Your task to perform on an android device: set an alarm Image 0: 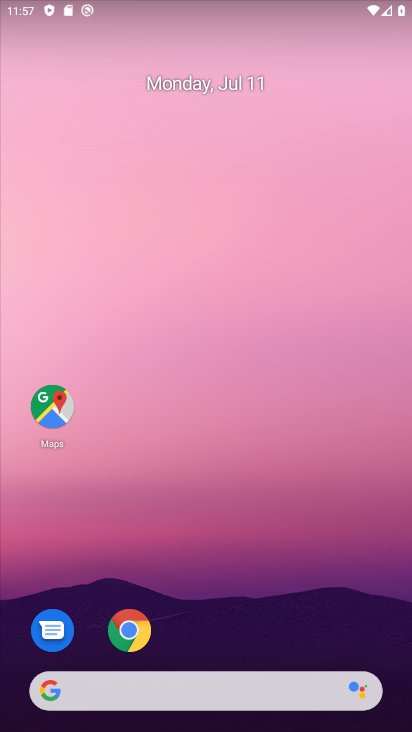
Step 0: drag from (206, 680) to (243, 129)
Your task to perform on an android device: set an alarm Image 1: 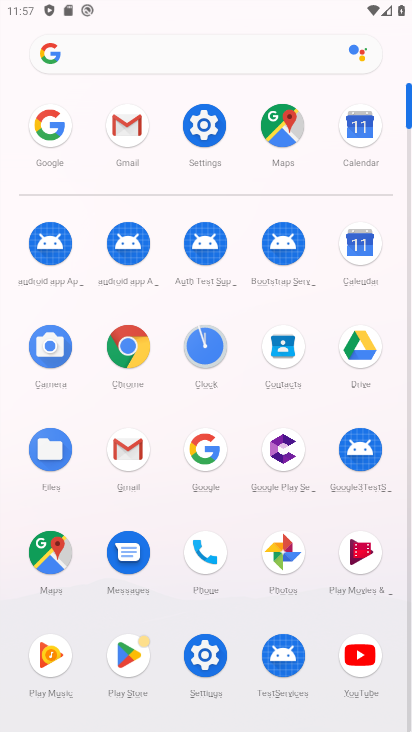
Step 1: click (205, 347)
Your task to perform on an android device: set an alarm Image 2: 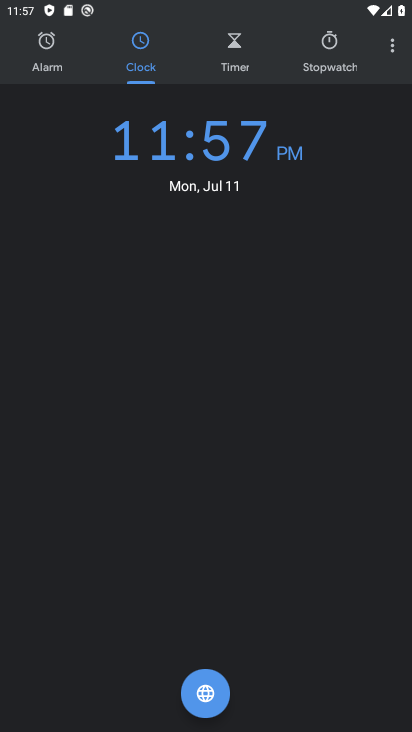
Step 2: click (50, 50)
Your task to perform on an android device: set an alarm Image 3: 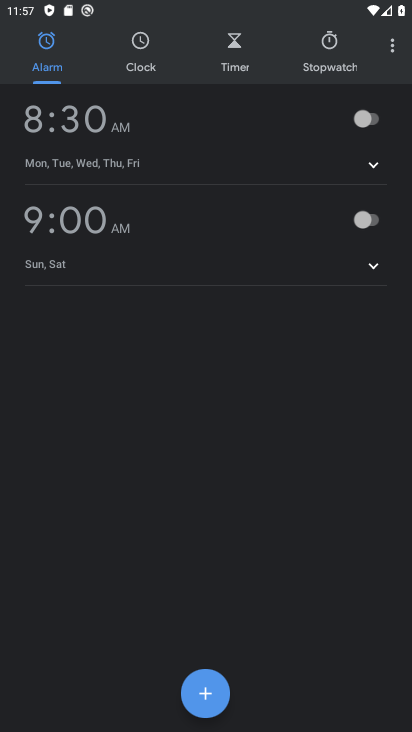
Step 3: click (205, 690)
Your task to perform on an android device: set an alarm Image 4: 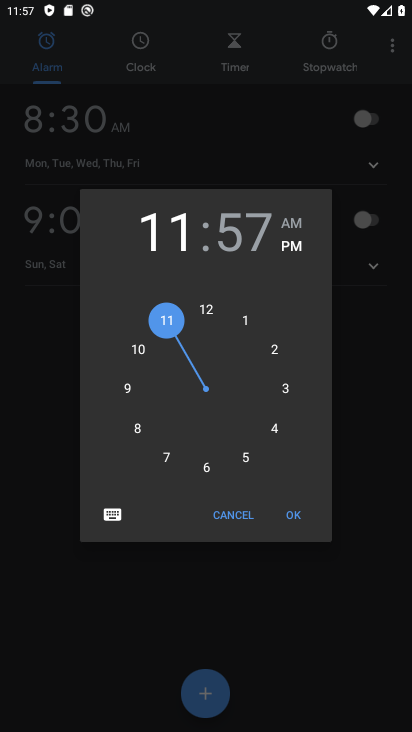
Step 4: click (202, 456)
Your task to perform on an android device: set an alarm Image 5: 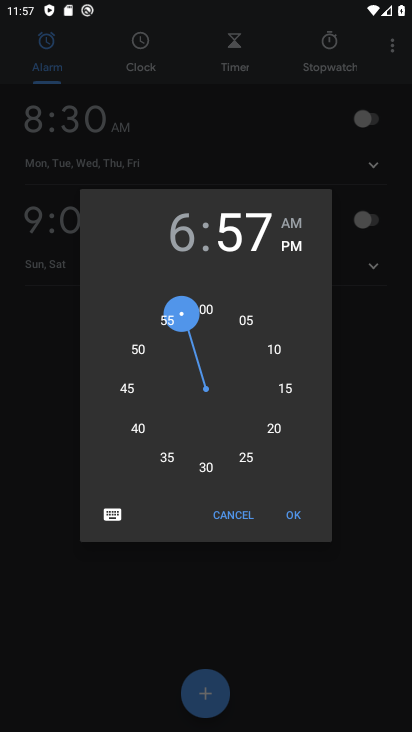
Step 5: click (202, 456)
Your task to perform on an android device: set an alarm Image 6: 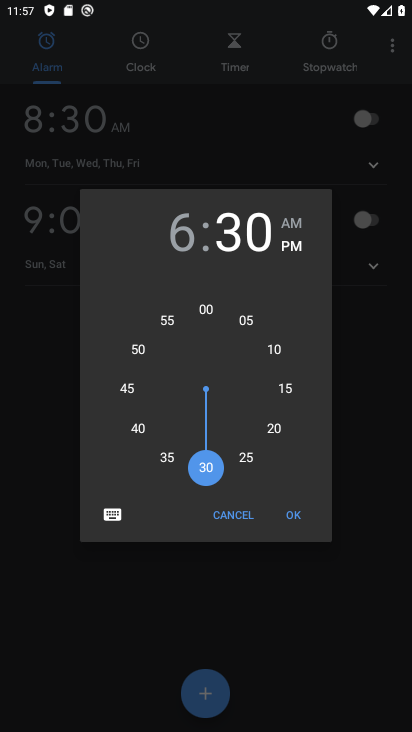
Step 6: click (293, 220)
Your task to perform on an android device: set an alarm Image 7: 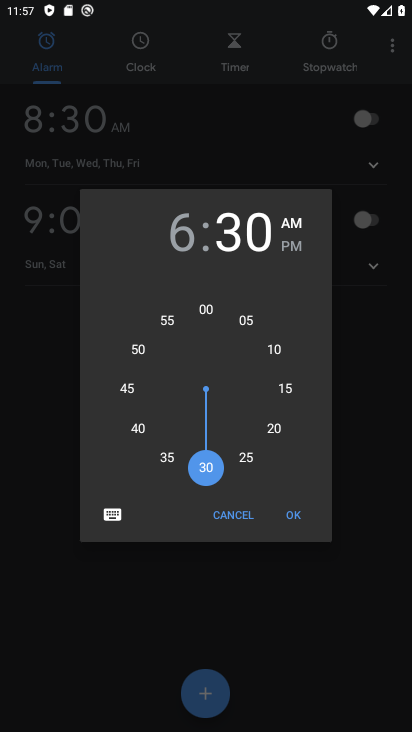
Step 7: click (299, 513)
Your task to perform on an android device: set an alarm Image 8: 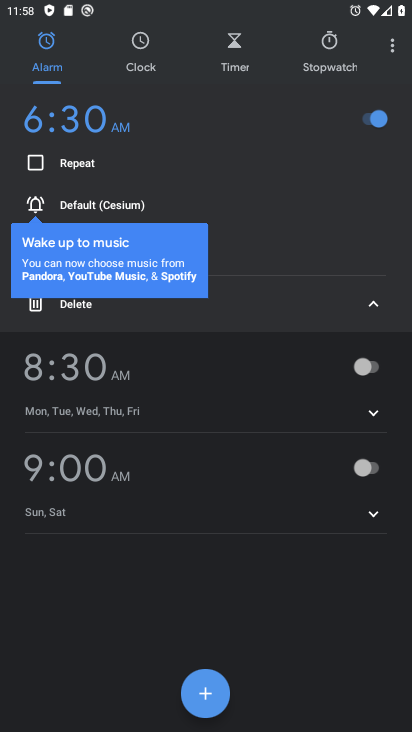
Step 8: click (381, 301)
Your task to perform on an android device: set an alarm Image 9: 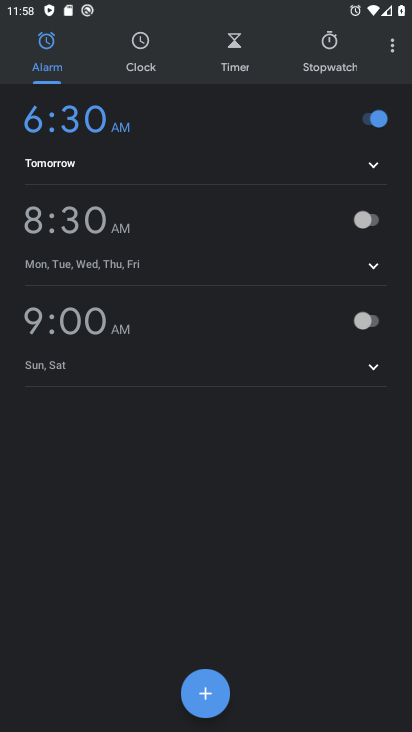
Step 9: task complete